Your task to perform on an android device: toggle data saver in the chrome app Image 0: 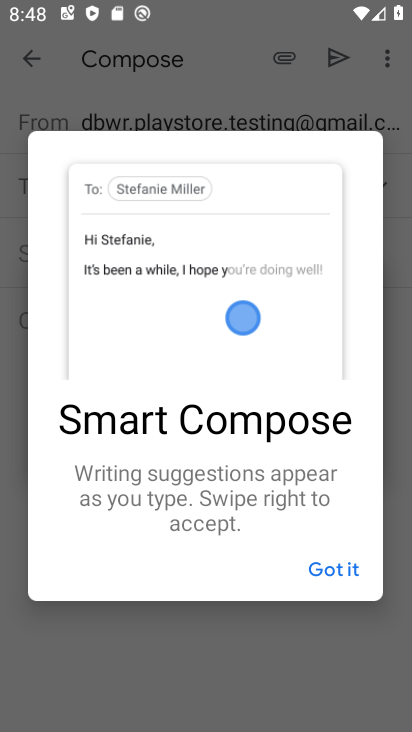
Step 0: press home button
Your task to perform on an android device: toggle data saver in the chrome app Image 1: 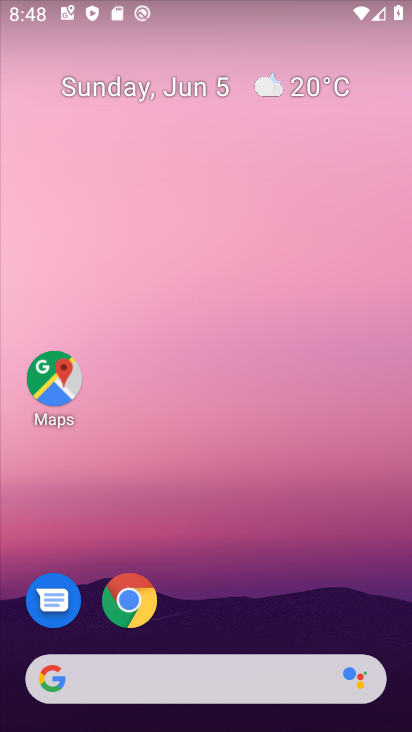
Step 1: click (132, 601)
Your task to perform on an android device: toggle data saver in the chrome app Image 2: 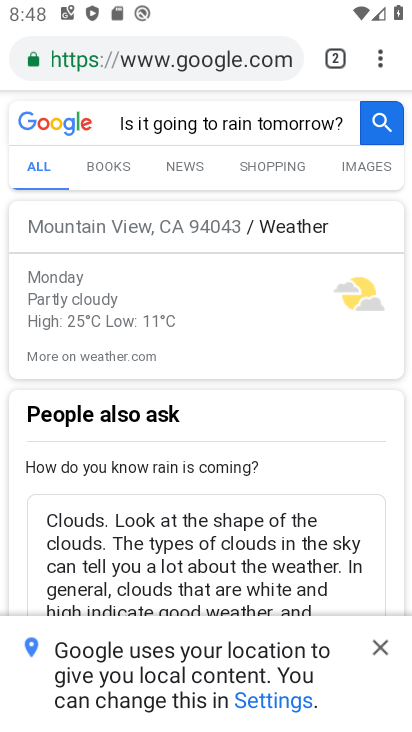
Step 2: click (381, 59)
Your task to perform on an android device: toggle data saver in the chrome app Image 3: 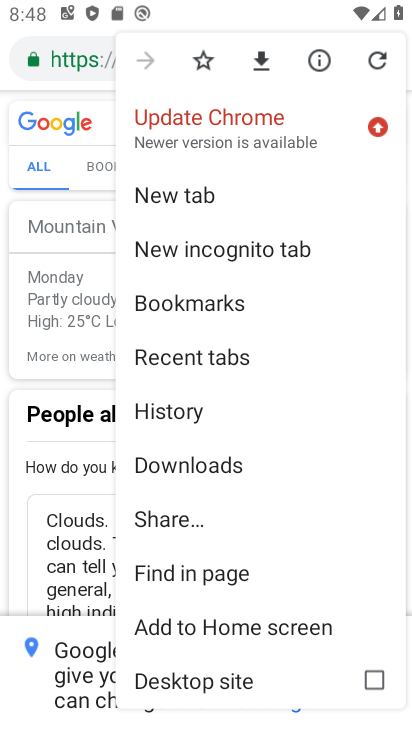
Step 3: drag from (255, 452) to (267, 153)
Your task to perform on an android device: toggle data saver in the chrome app Image 4: 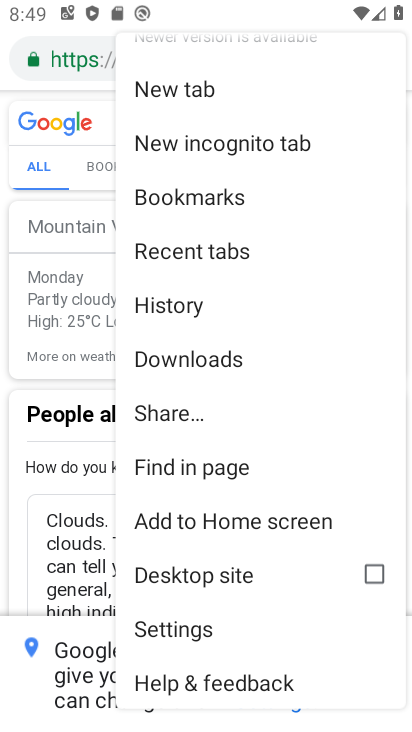
Step 4: click (181, 620)
Your task to perform on an android device: toggle data saver in the chrome app Image 5: 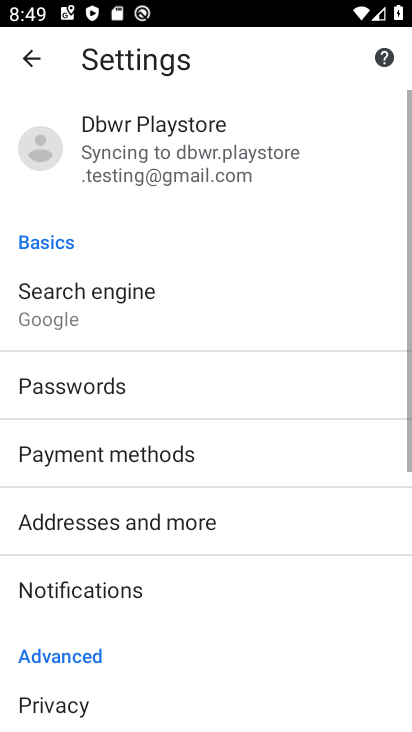
Step 5: drag from (263, 532) to (283, 66)
Your task to perform on an android device: toggle data saver in the chrome app Image 6: 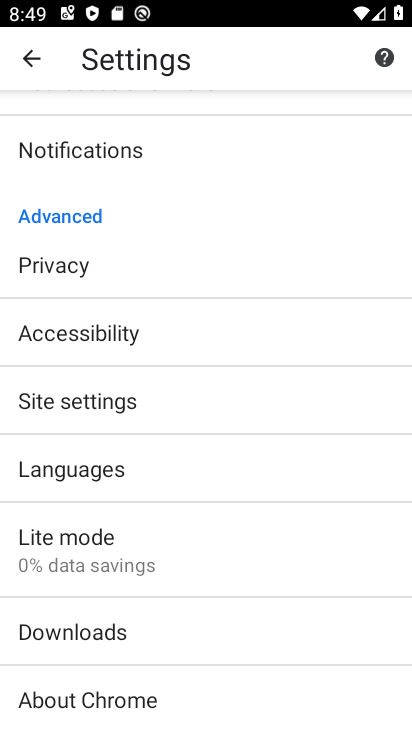
Step 6: click (165, 560)
Your task to perform on an android device: toggle data saver in the chrome app Image 7: 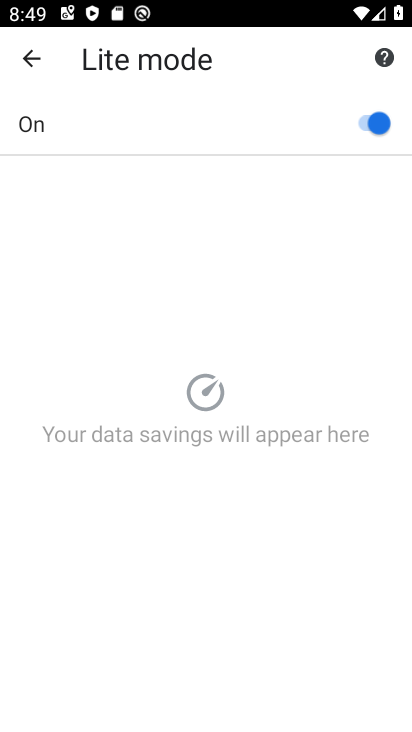
Step 7: click (357, 119)
Your task to perform on an android device: toggle data saver in the chrome app Image 8: 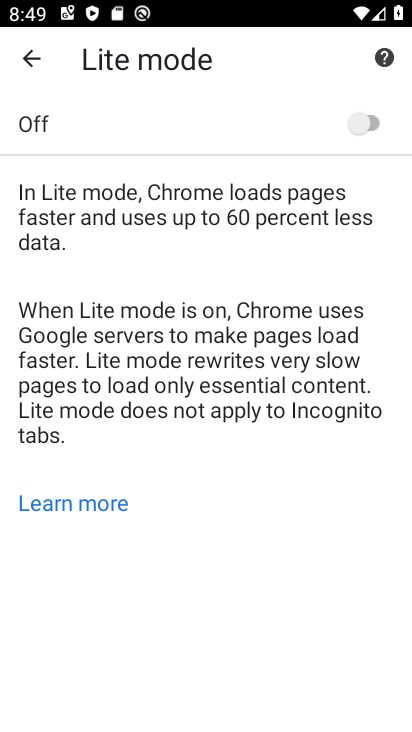
Step 8: task complete